Your task to perform on an android device: delete browsing data in the chrome app Image 0: 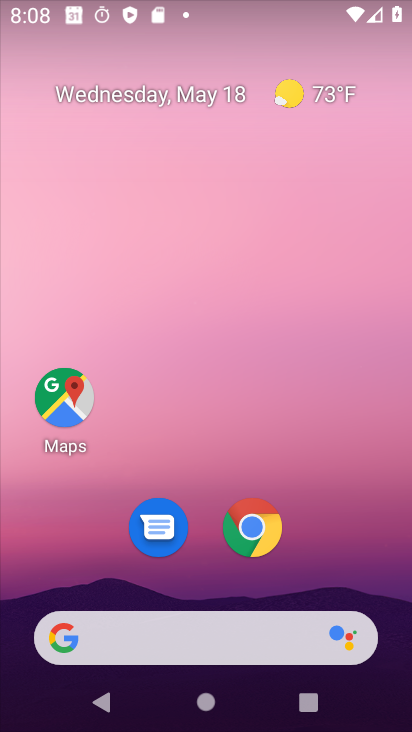
Step 0: click (249, 533)
Your task to perform on an android device: delete browsing data in the chrome app Image 1: 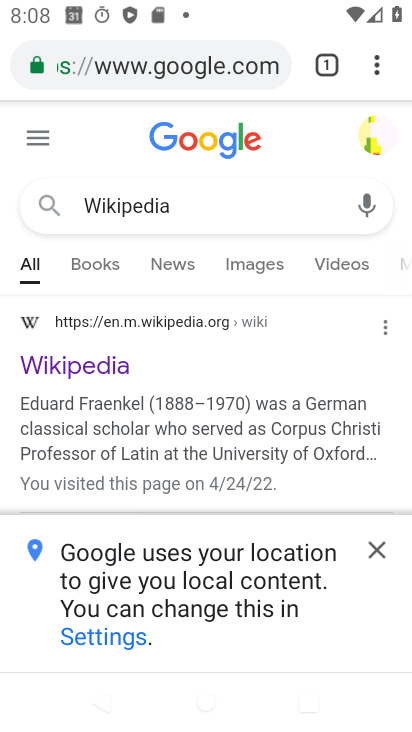
Step 1: click (378, 67)
Your task to perform on an android device: delete browsing data in the chrome app Image 2: 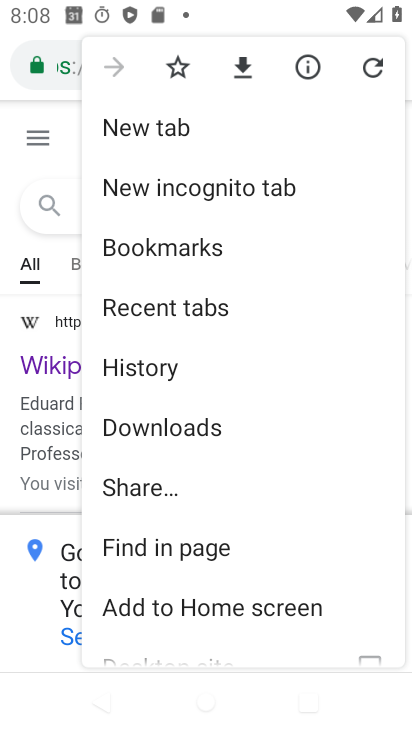
Step 2: click (127, 361)
Your task to perform on an android device: delete browsing data in the chrome app Image 3: 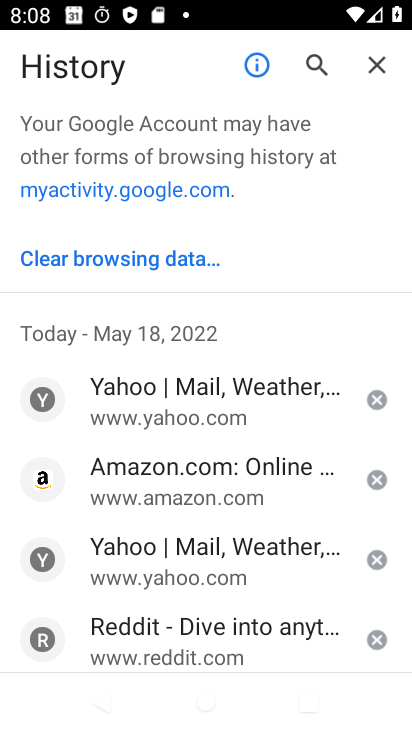
Step 3: click (98, 251)
Your task to perform on an android device: delete browsing data in the chrome app Image 4: 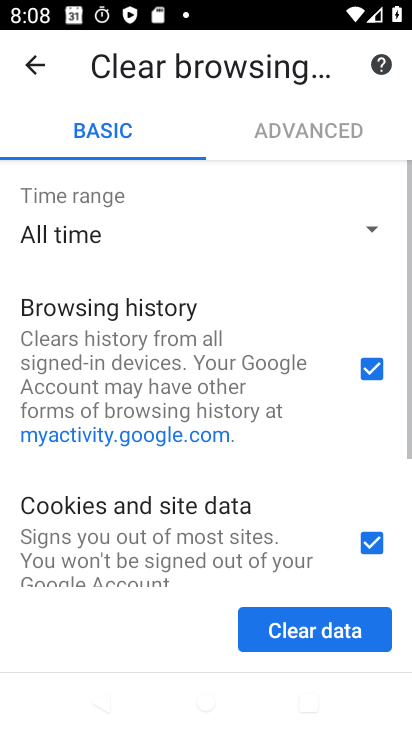
Step 4: click (274, 638)
Your task to perform on an android device: delete browsing data in the chrome app Image 5: 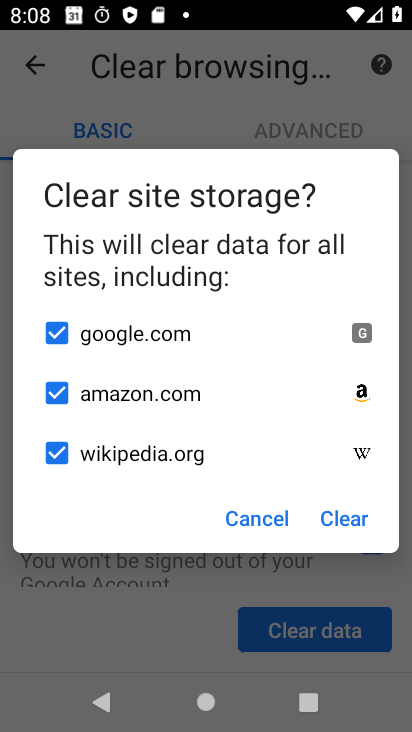
Step 5: click (322, 516)
Your task to perform on an android device: delete browsing data in the chrome app Image 6: 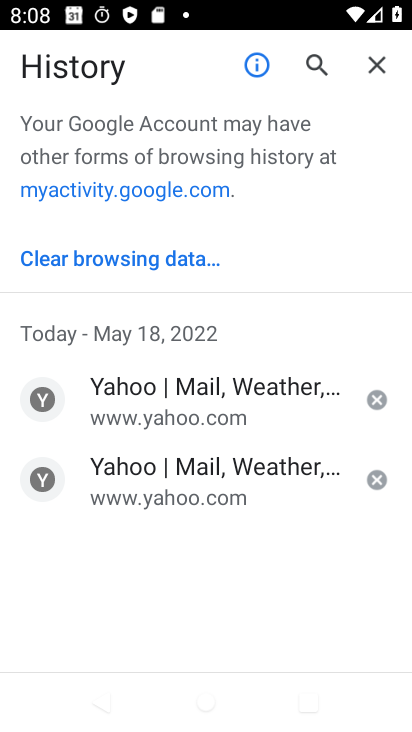
Step 6: task complete